Your task to perform on an android device: Turn on notifications for the Google Maps app Image 0: 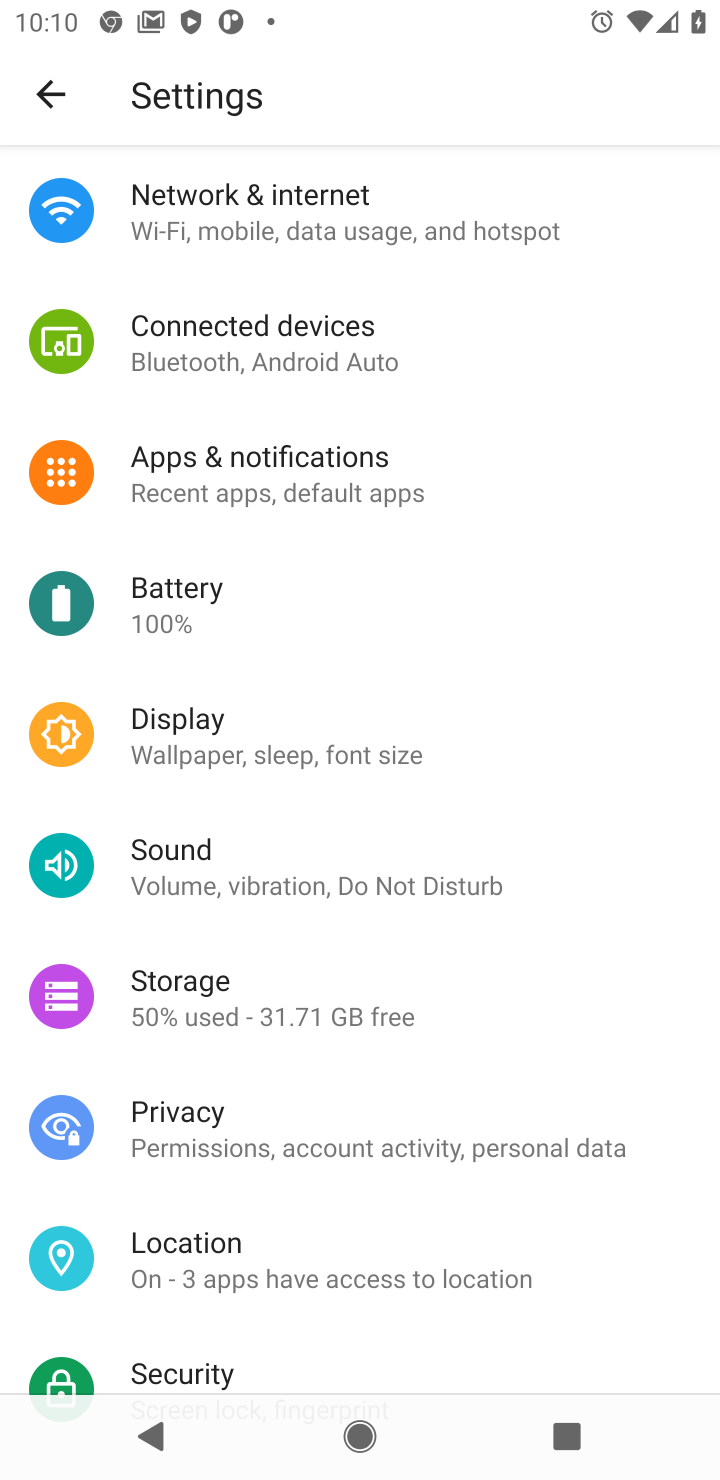
Step 0: press home button
Your task to perform on an android device: Turn on notifications for the Google Maps app Image 1: 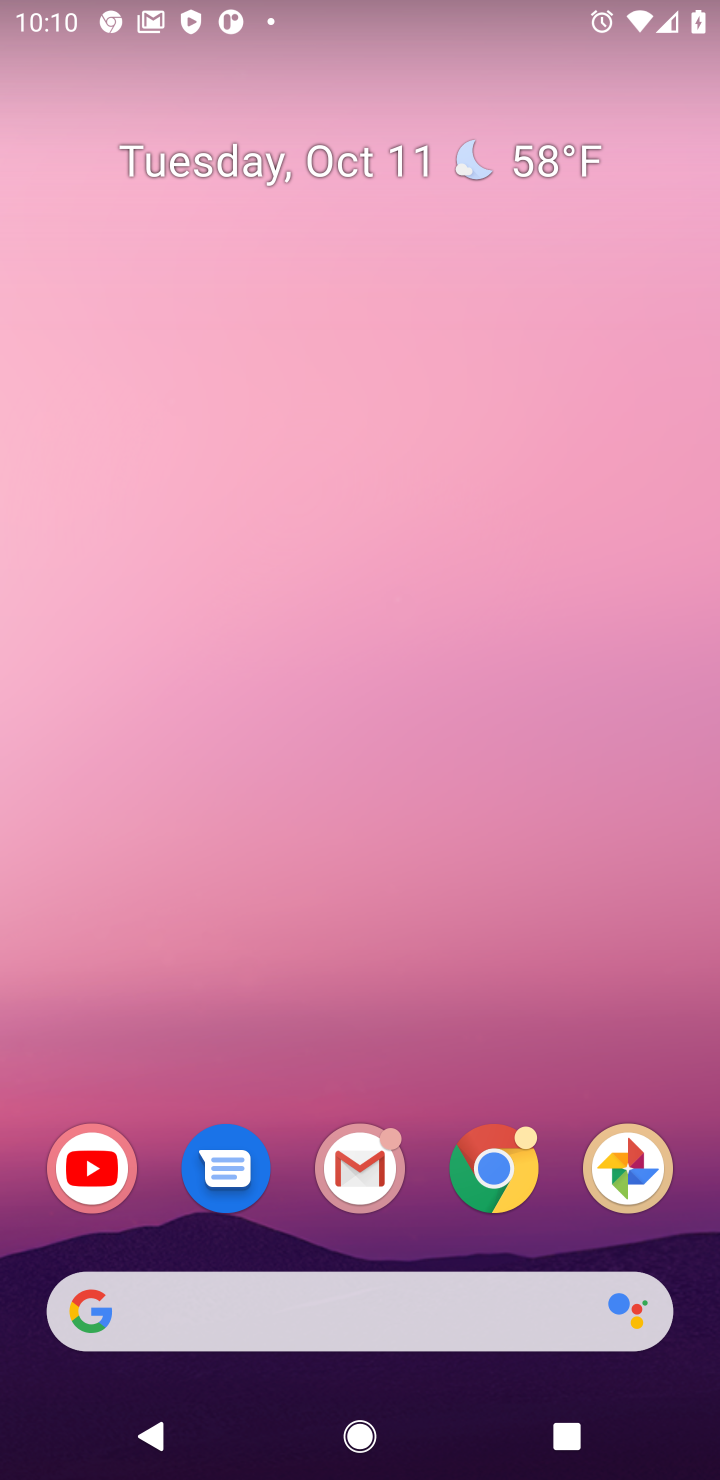
Step 1: click (467, 408)
Your task to perform on an android device: Turn on notifications for the Google Maps app Image 2: 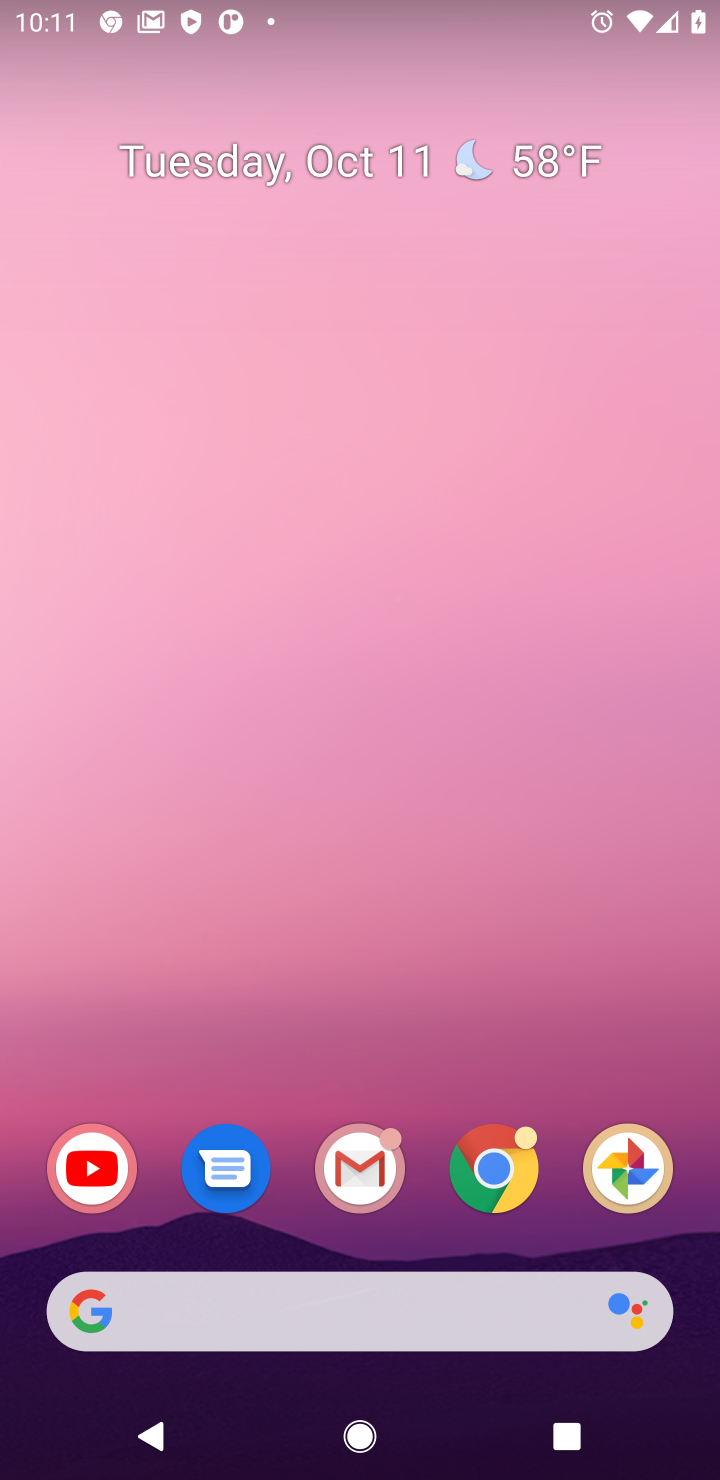
Step 2: drag from (391, 752) to (401, 459)
Your task to perform on an android device: Turn on notifications for the Google Maps app Image 3: 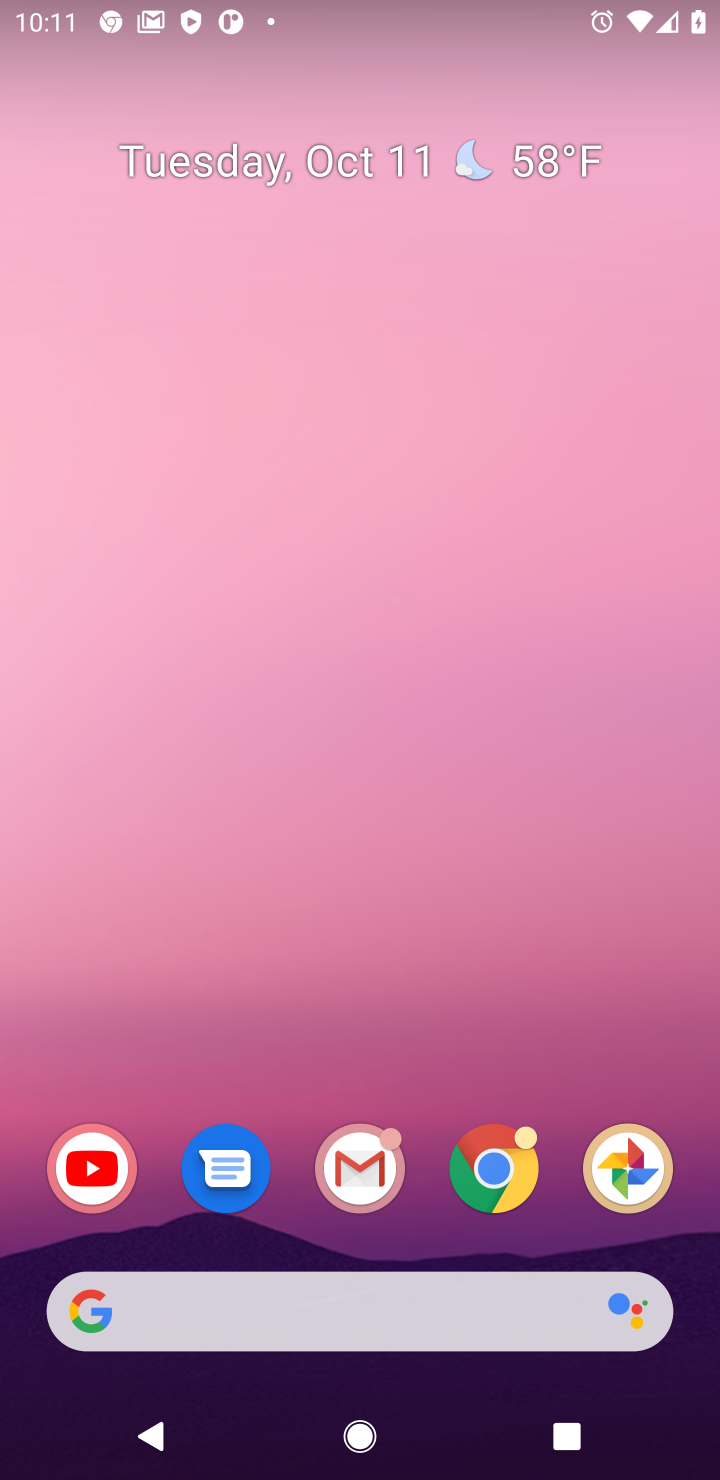
Step 3: drag from (340, 1025) to (444, 208)
Your task to perform on an android device: Turn on notifications for the Google Maps app Image 4: 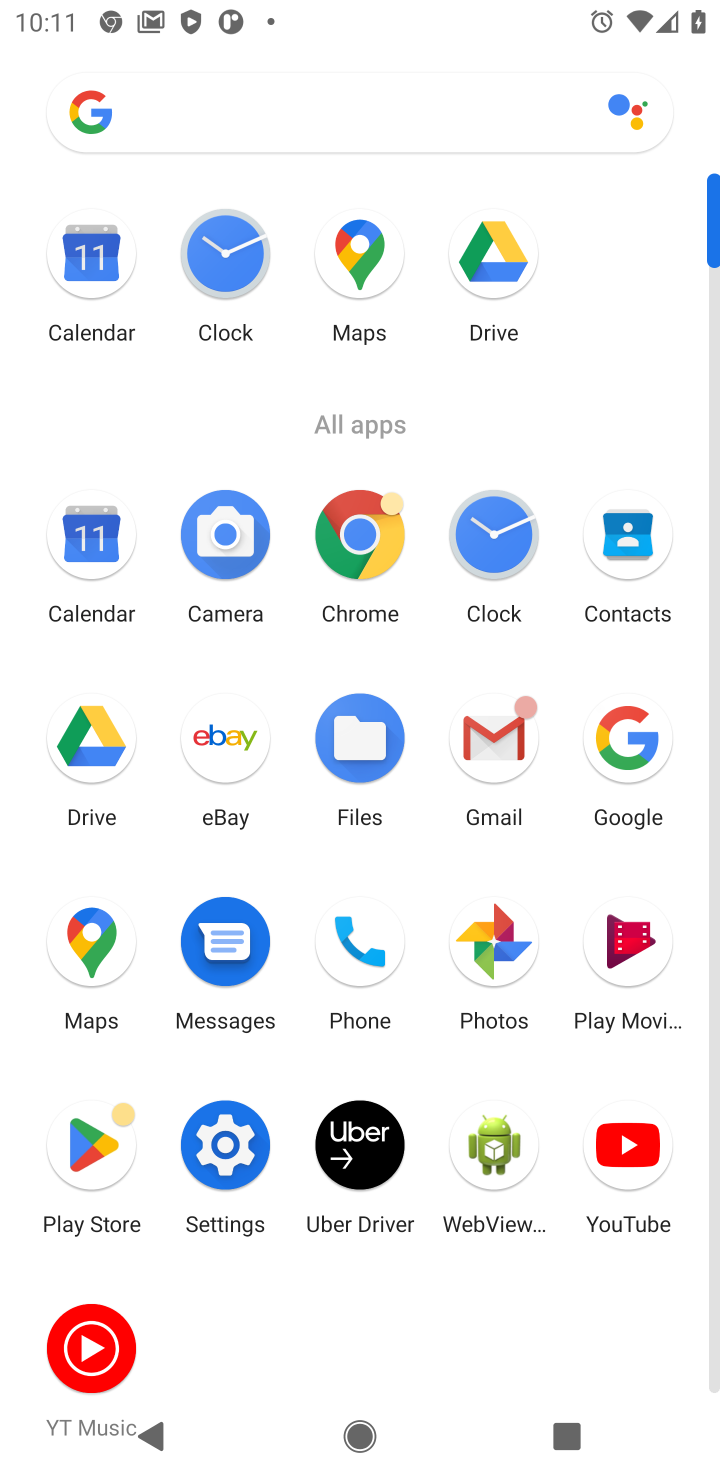
Step 4: click (378, 239)
Your task to perform on an android device: Turn on notifications for the Google Maps app Image 5: 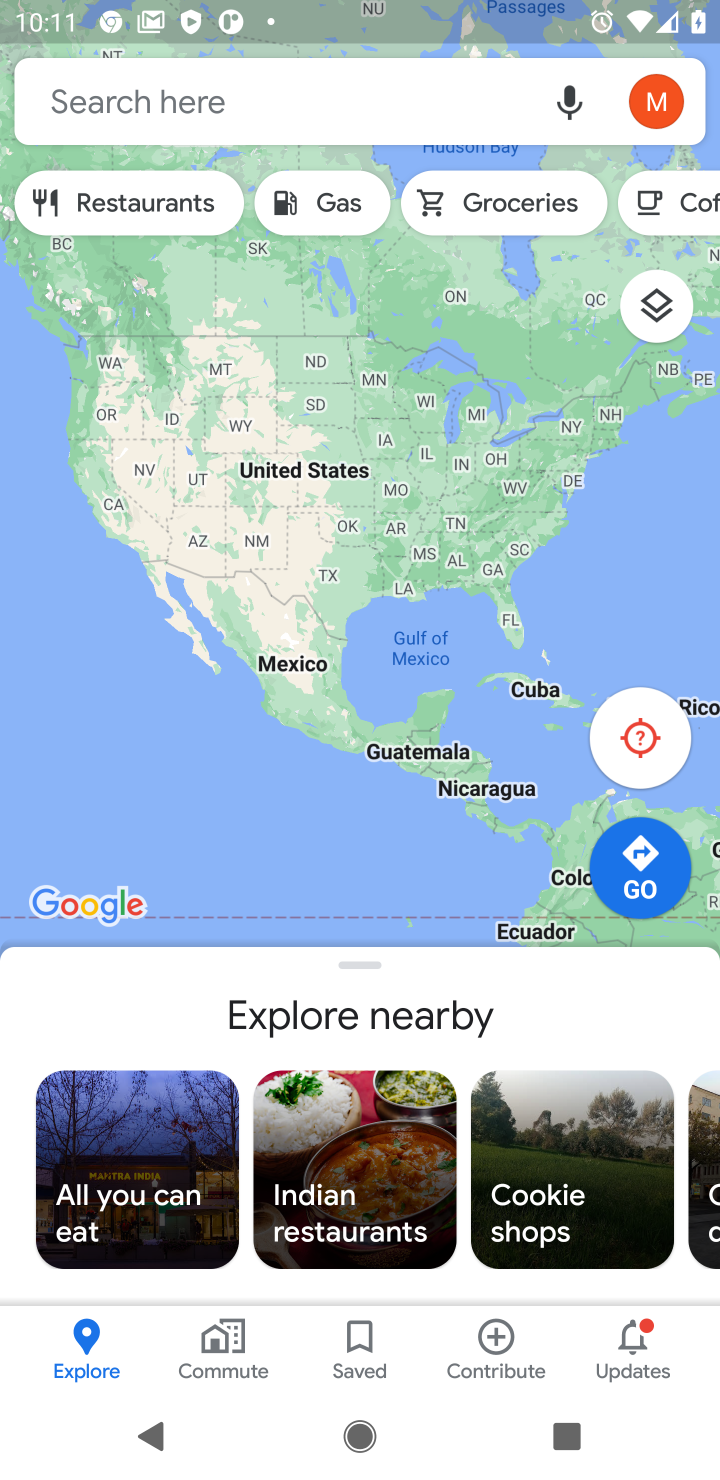
Step 5: drag from (317, 694) to (349, 394)
Your task to perform on an android device: Turn on notifications for the Google Maps app Image 6: 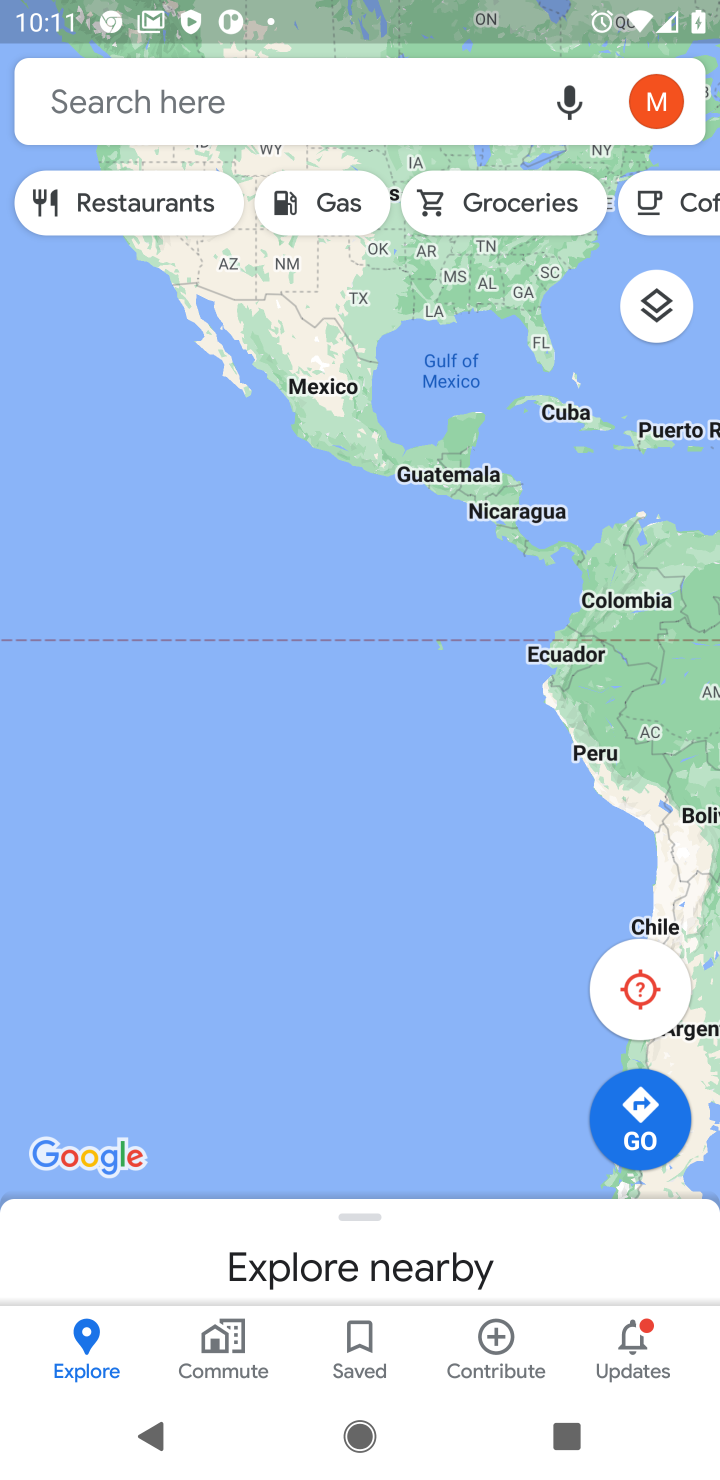
Step 6: click (634, 1354)
Your task to perform on an android device: Turn on notifications for the Google Maps app Image 7: 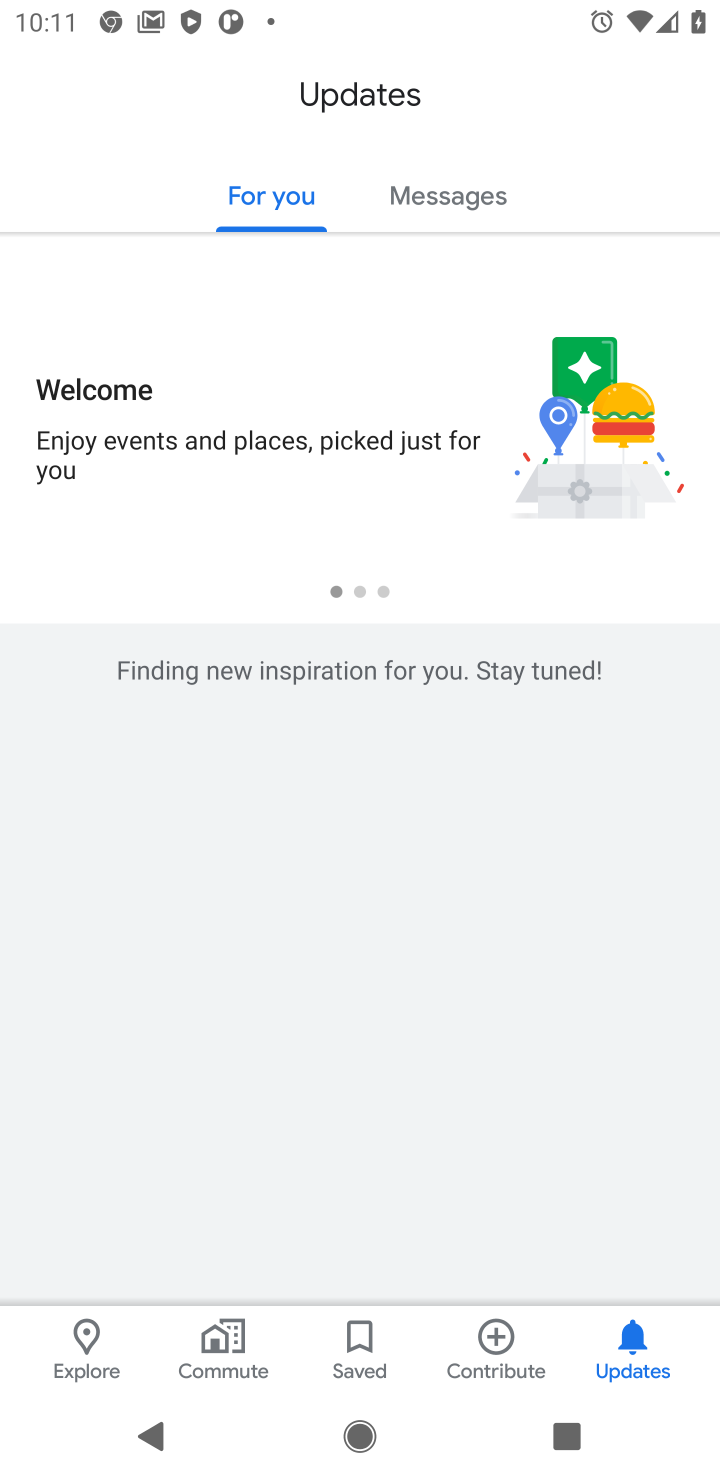
Step 7: click (64, 1363)
Your task to perform on an android device: Turn on notifications for the Google Maps app Image 8: 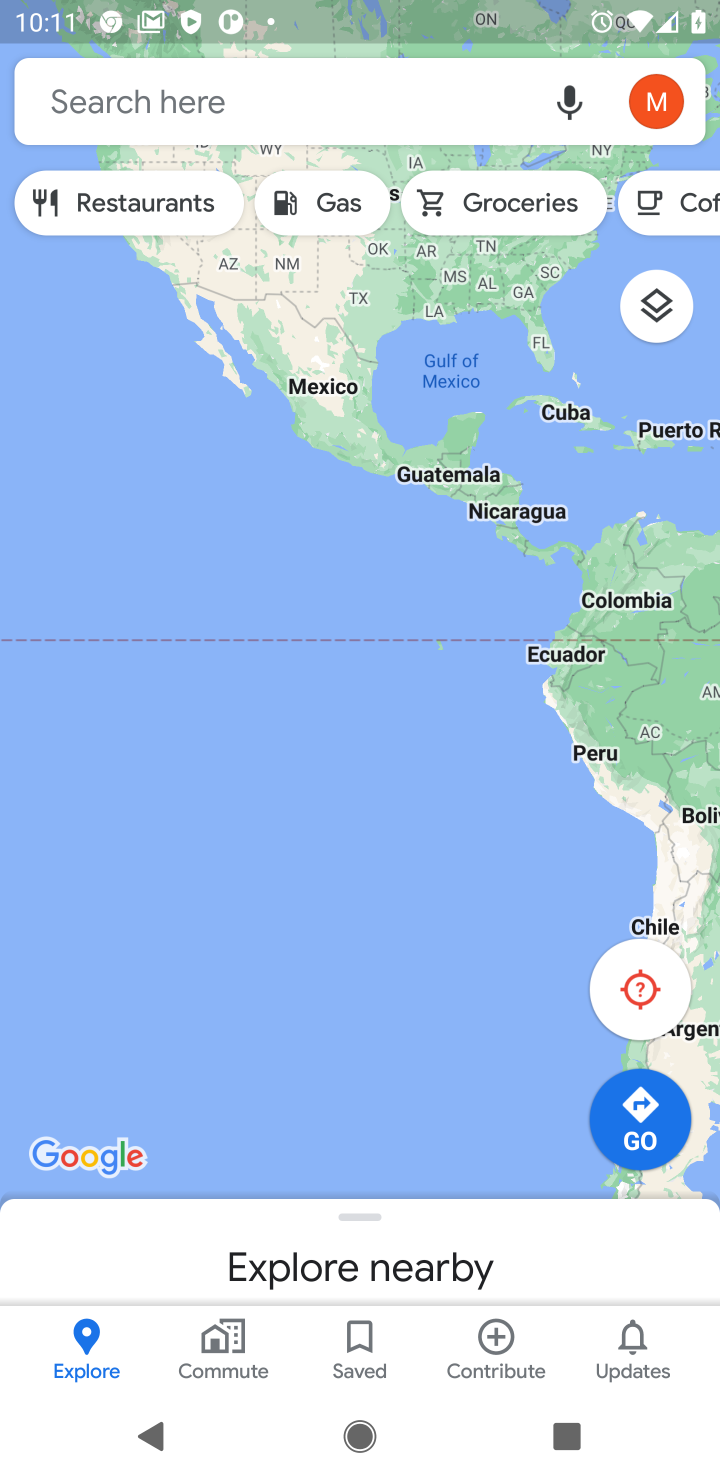
Step 8: click (661, 92)
Your task to perform on an android device: Turn on notifications for the Google Maps app Image 9: 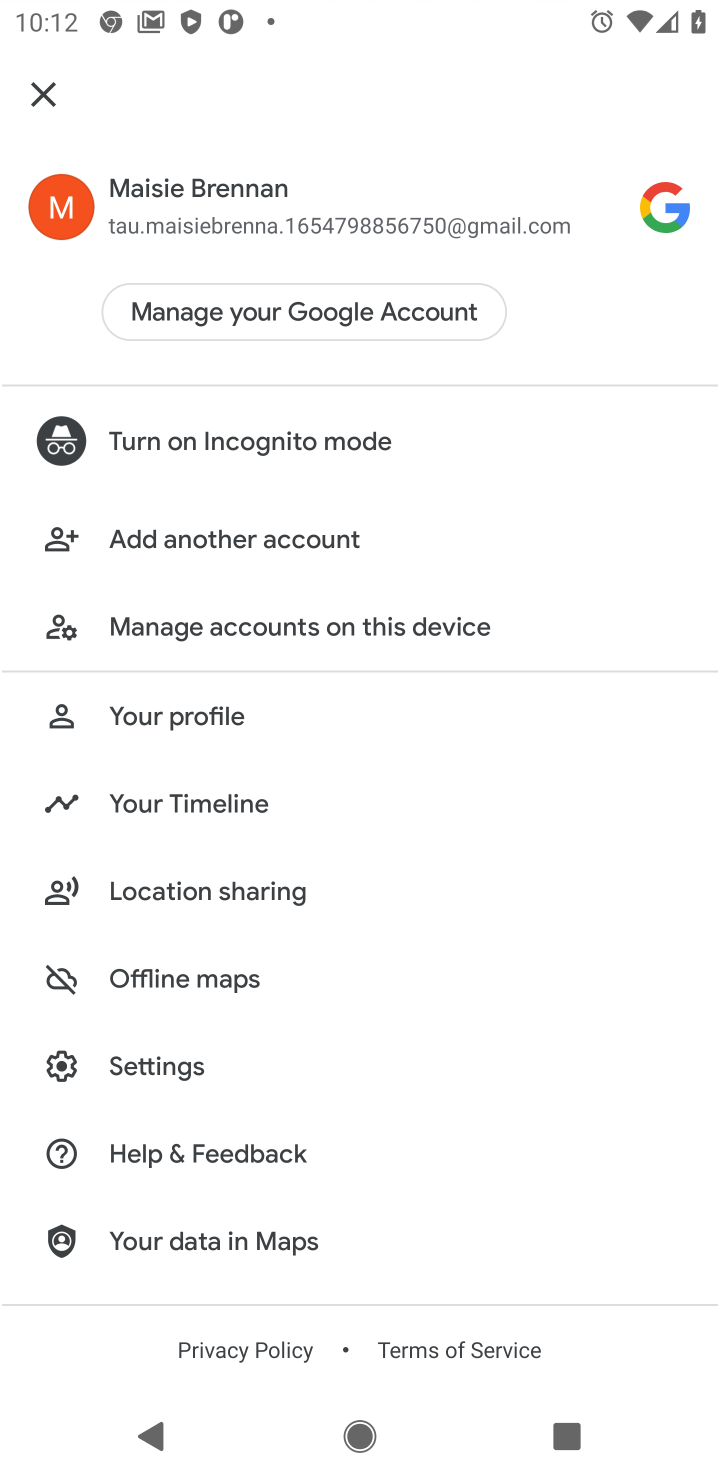
Step 9: drag from (396, 1075) to (470, 473)
Your task to perform on an android device: Turn on notifications for the Google Maps app Image 10: 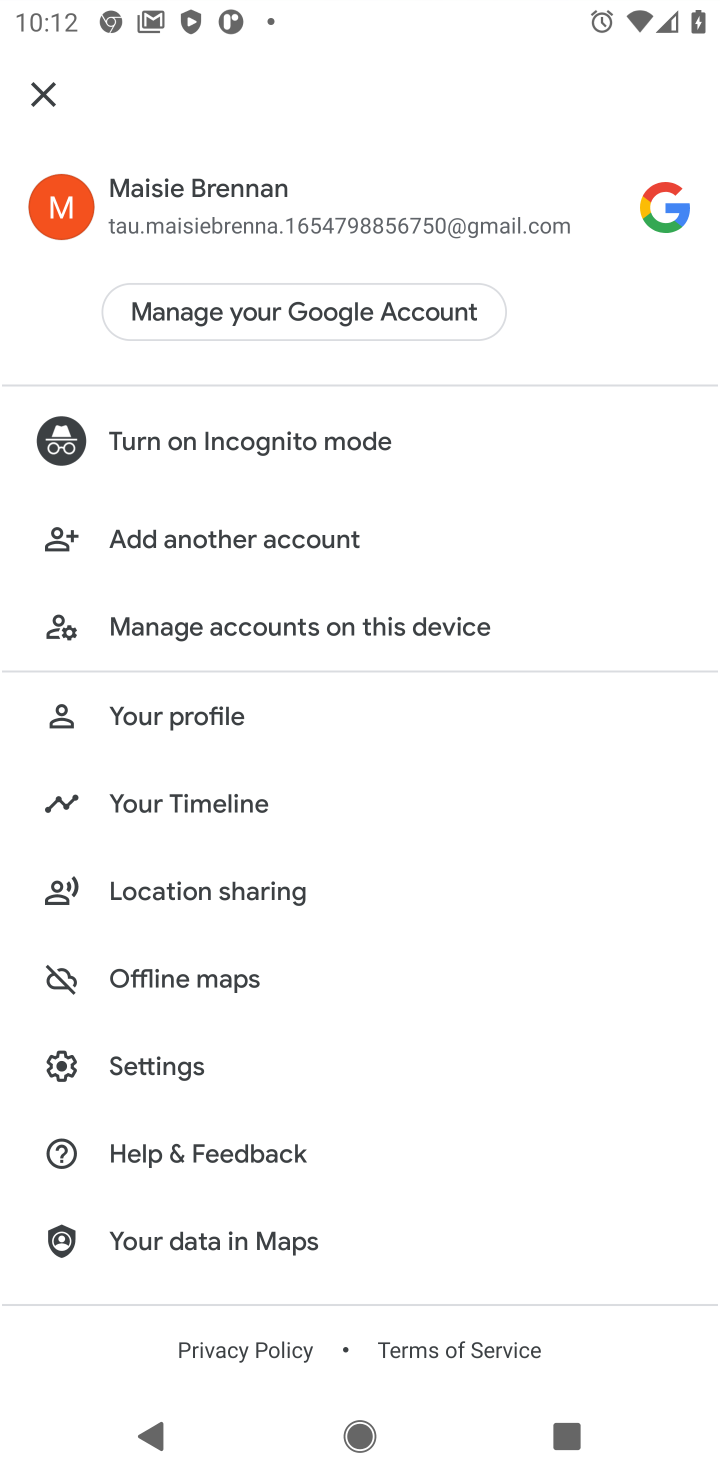
Step 10: click (167, 970)
Your task to perform on an android device: Turn on notifications for the Google Maps app Image 11: 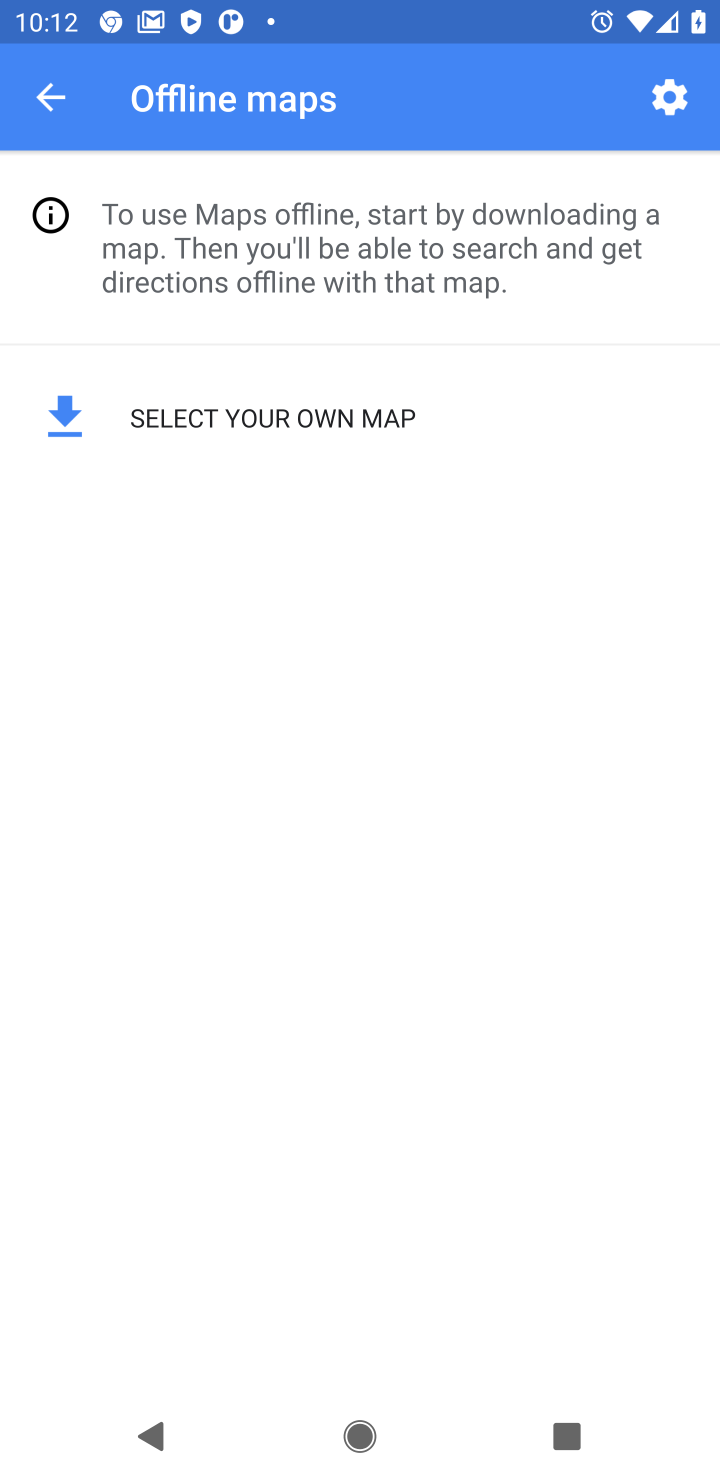
Step 11: click (35, 71)
Your task to perform on an android device: Turn on notifications for the Google Maps app Image 12: 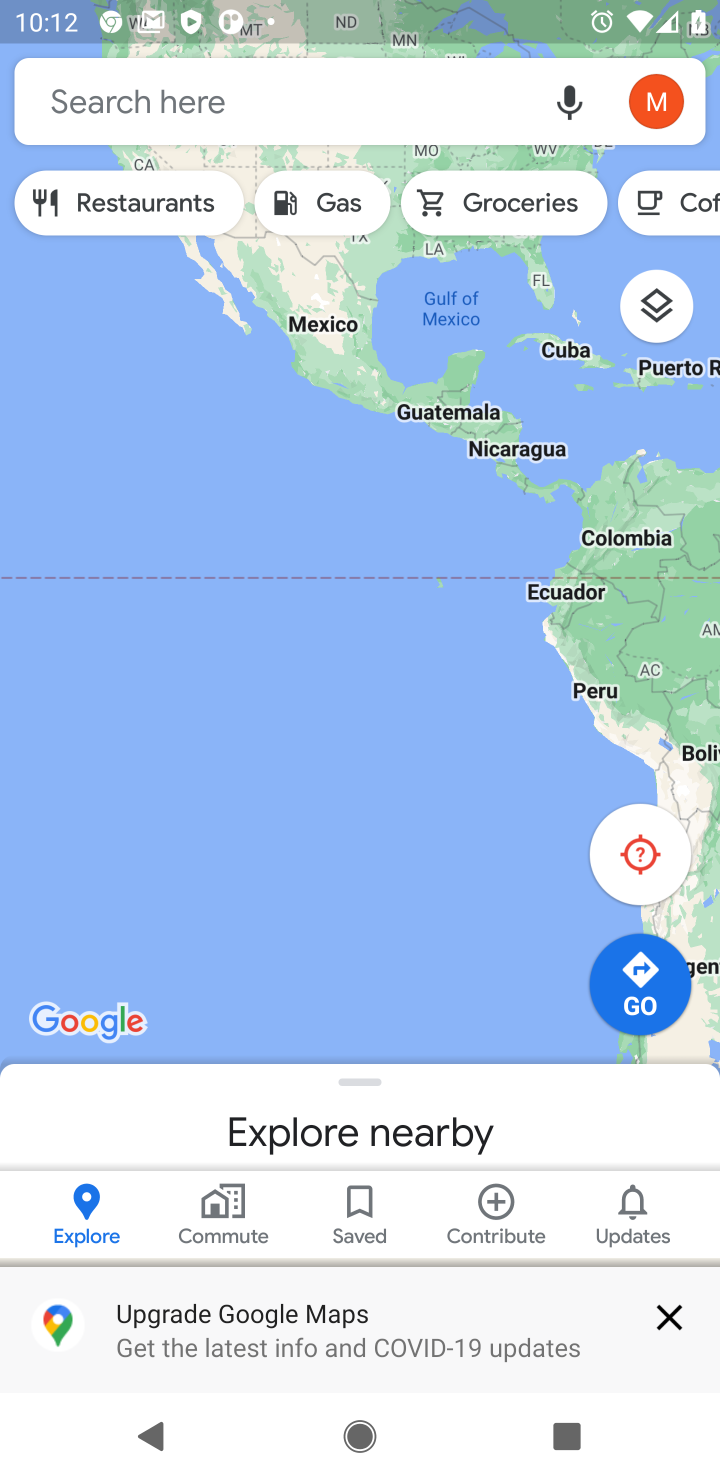
Step 12: click (663, 1313)
Your task to perform on an android device: Turn on notifications for the Google Maps app Image 13: 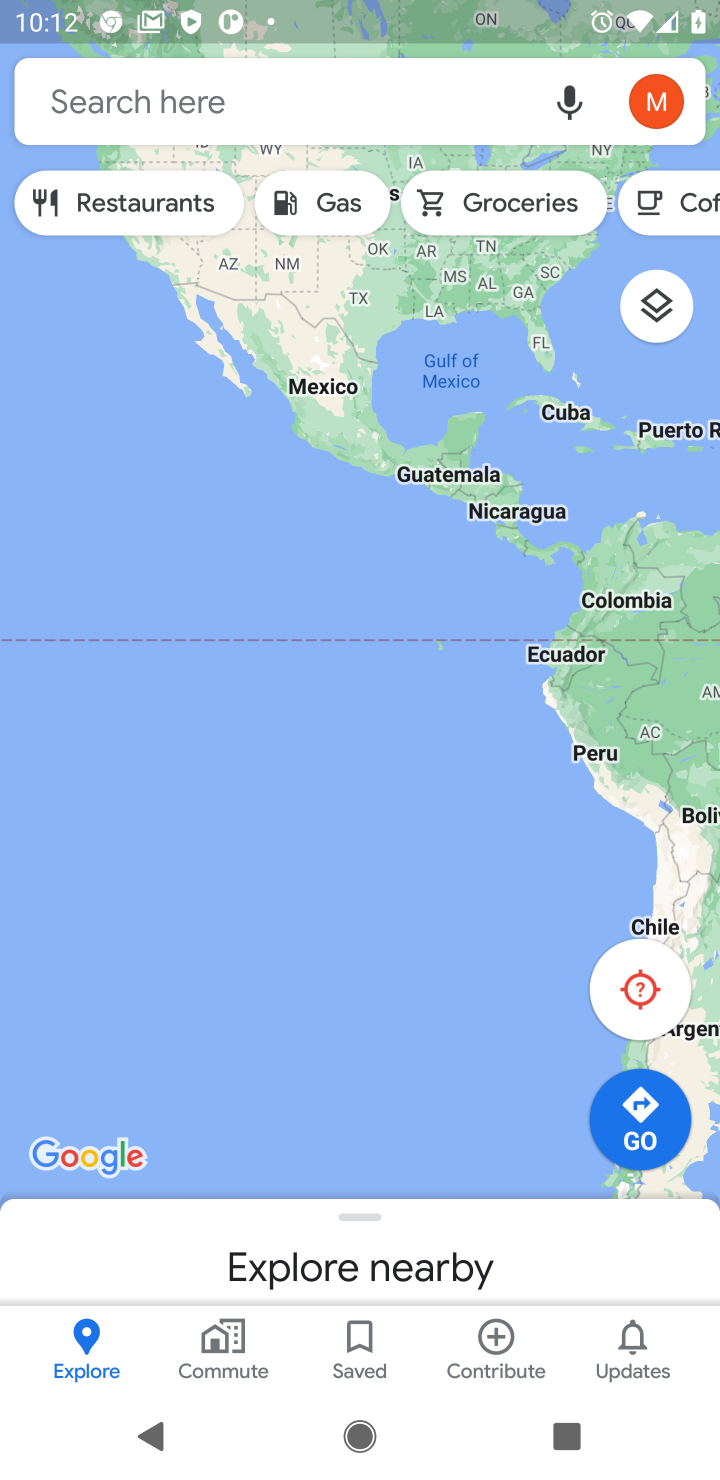
Step 13: task complete